Your task to perform on an android device: Go to Google Image 0: 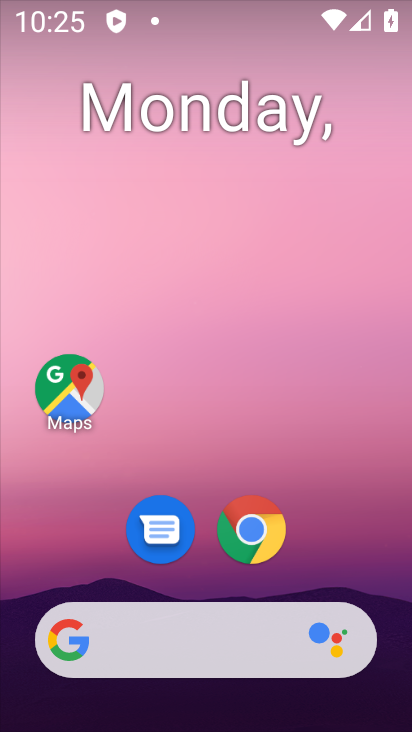
Step 0: click (70, 644)
Your task to perform on an android device: Go to Google Image 1: 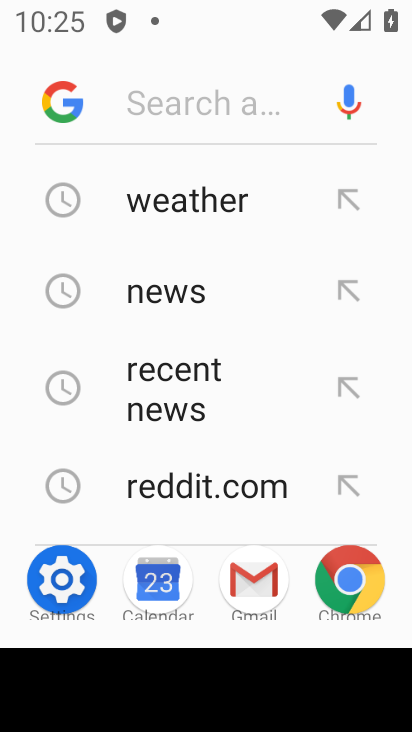
Step 1: click (70, 104)
Your task to perform on an android device: Go to Google Image 2: 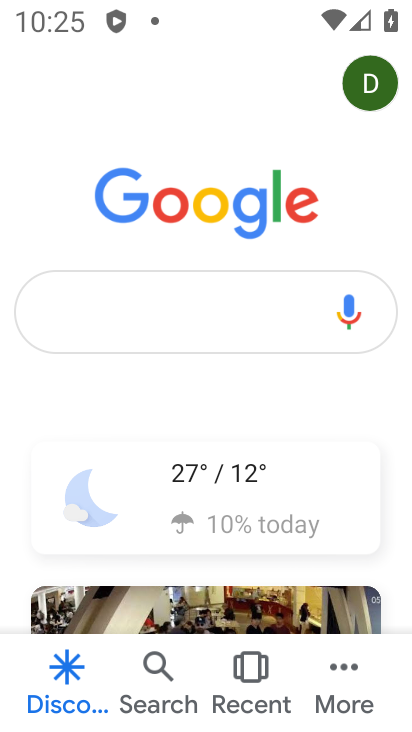
Step 2: click (188, 327)
Your task to perform on an android device: Go to Google Image 3: 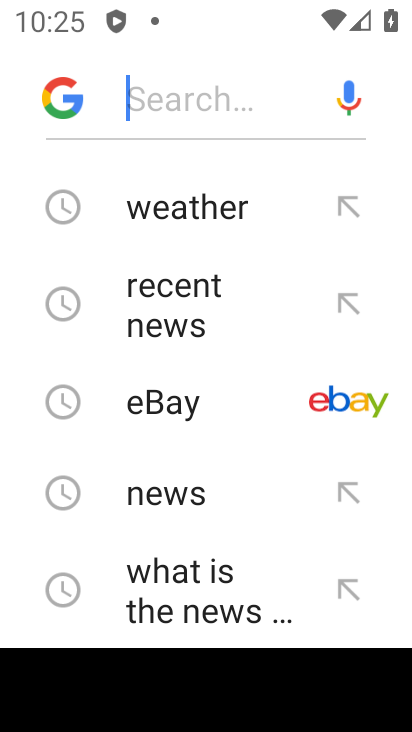
Step 3: task complete